Your task to perform on an android device: open device folders in google photos Image 0: 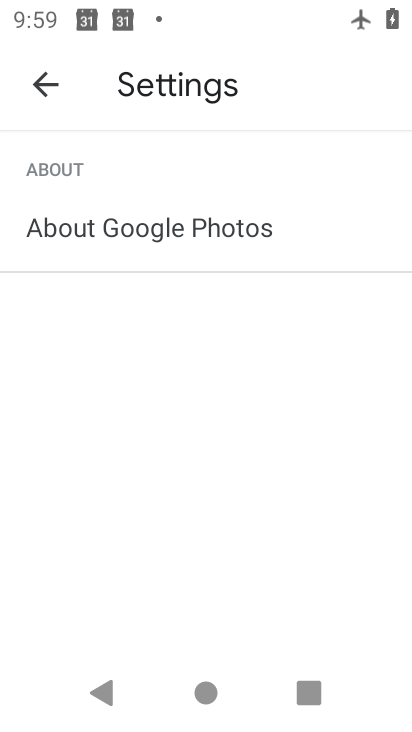
Step 0: press home button
Your task to perform on an android device: open device folders in google photos Image 1: 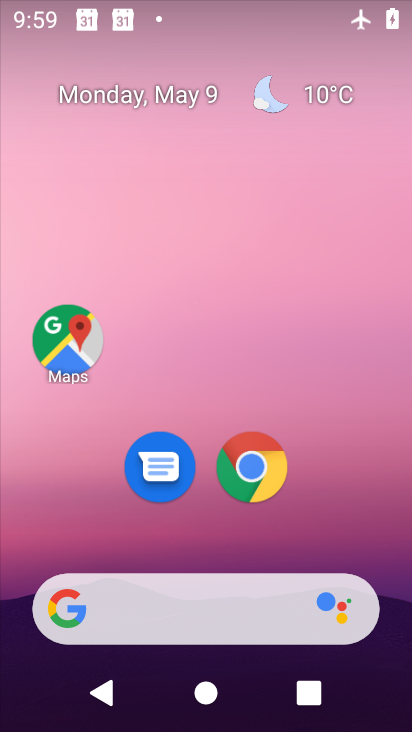
Step 1: drag from (365, 565) to (392, 17)
Your task to perform on an android device: open device folders in google photos Image 2: 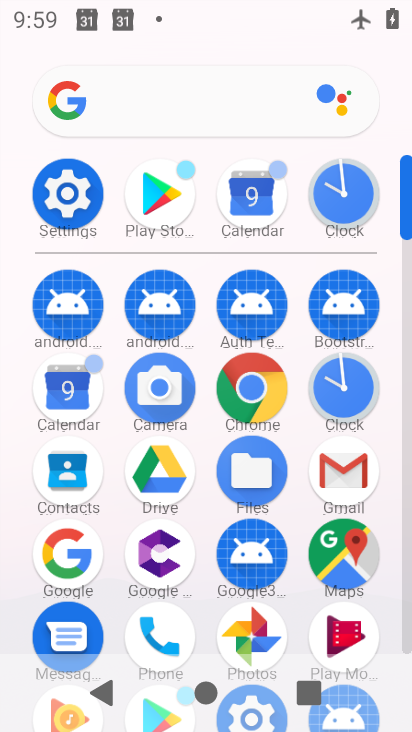
Step 2: click (258, 632)
Your task to perform on an android device: open device folders in google photos Image 3: 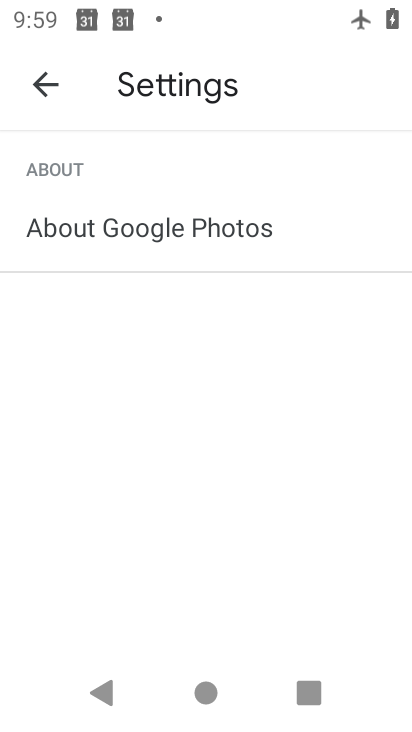
Step 3: click (48, 97)
Your task to perform on an android device: open device folders in google photos Image 4: 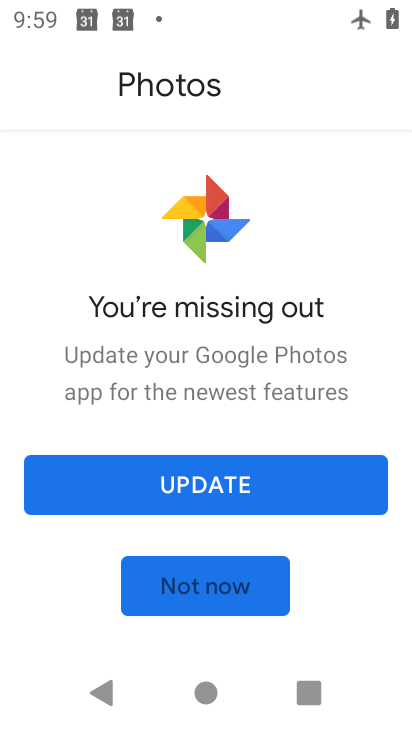
Step 4: click (236, 595)
Your task to perform on an android device: open device folders in google photos Image 5: 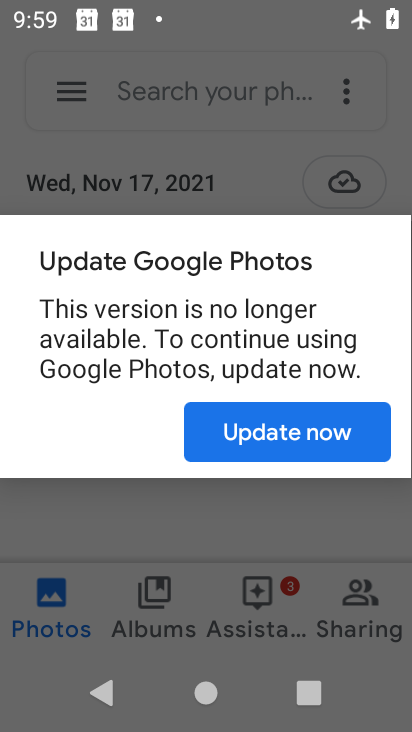
Step 5: click (221, 439)
Your task to perform on an android device: open device folders in google photos Image 6: 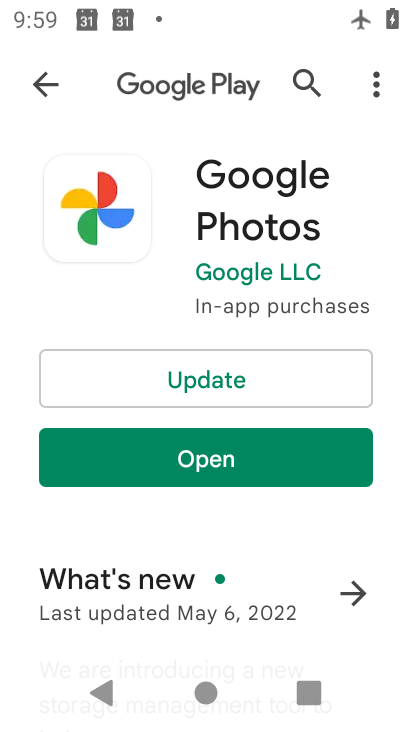
Step 6: click (240, 482)
Your task to perform on an android device: open device folders in google photos Image 7: 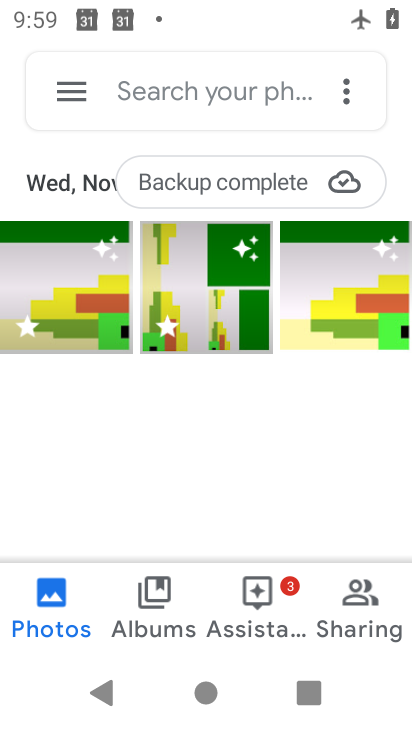
Step 7: click (71, 95)
Your task to perform on an android device: open device folders in google photos Image 8: 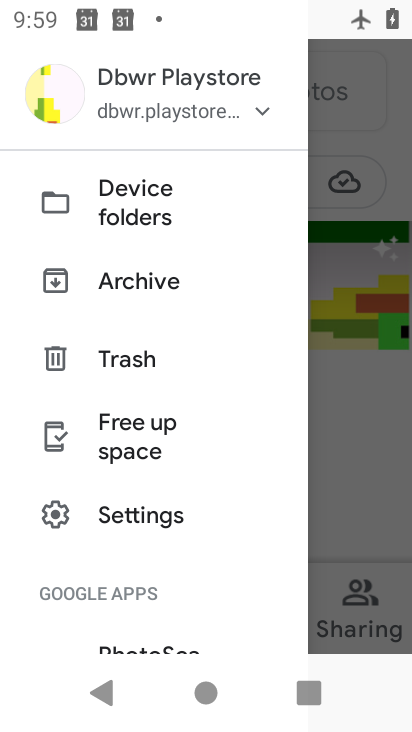
Step 8: click (99, 186)
Your task to perform on an android device: open device folders in google photos Image 9: 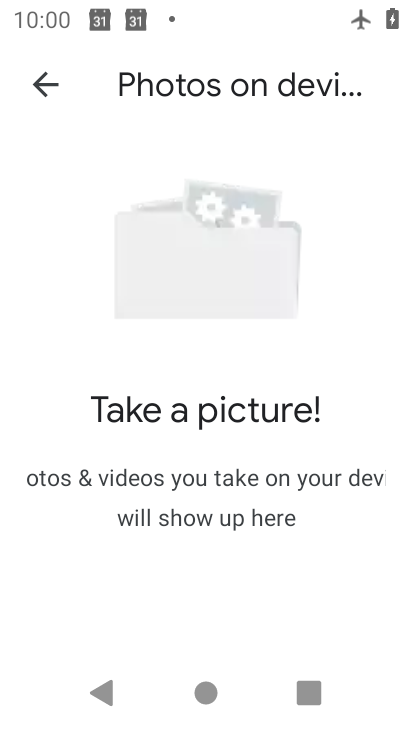
Step 9: task complete